Your task to perform on an android device: find snoozed emails in the gmail app Image 0: 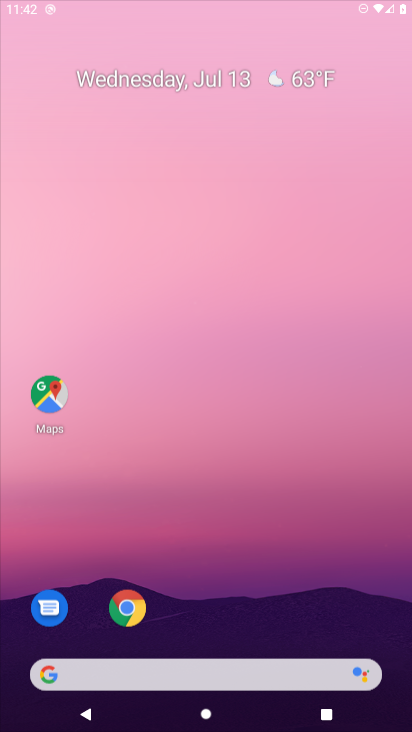
Step 0: press home button
Your task to perform on an android device: find snoozed emails in the gmail app Image 1: 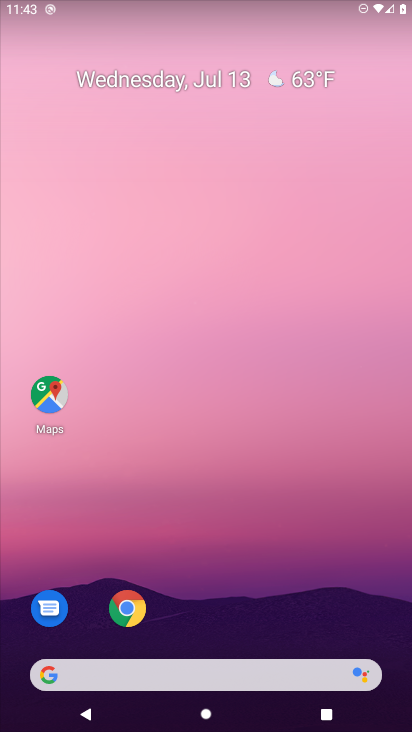
Step 1: drag from (183, 623) to (141, 0)
Your task to perform on an android device: find snoozed emails in the gmail app Image 2: 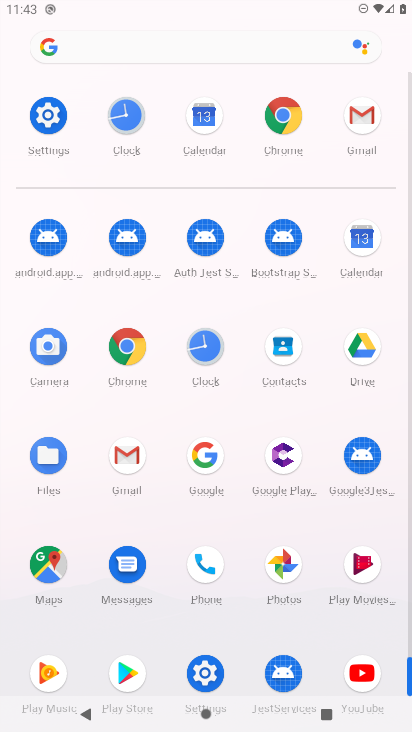
Step 2: click (359, 121)
Your task to perform on an android device: find snoozed emails in the gmail app Image 3: 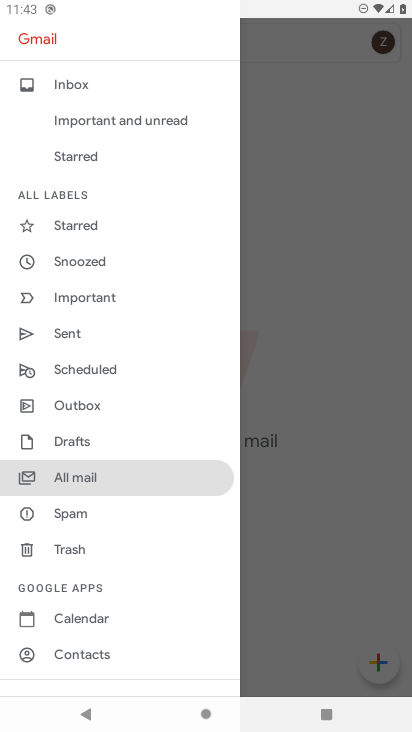
Step 3: click (79, 265)
Your task to perform on an android device: find snoozed emails in the gmail app Image 4: 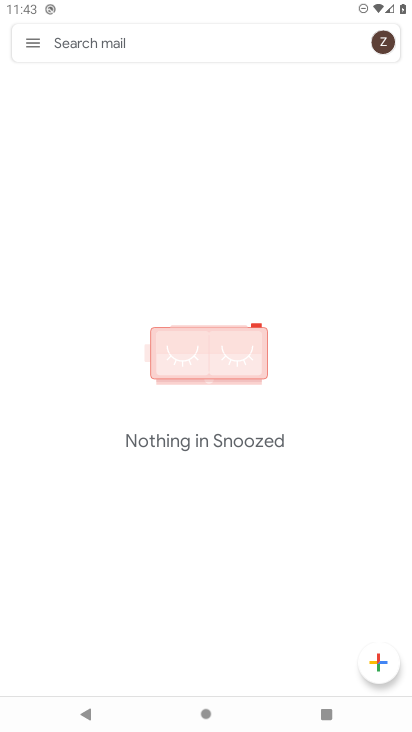
Step 4: task complete